Your task to perform on an android device: manage bookmarks in the chrome app Image 0: 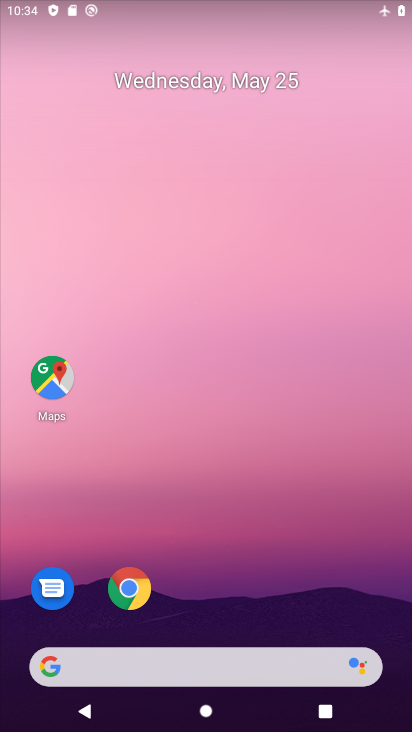
Step 0: drag from (246, 546) to (219, 155)
Your task to perform on an android device: manage bookmarks in the chrome app Image 1: 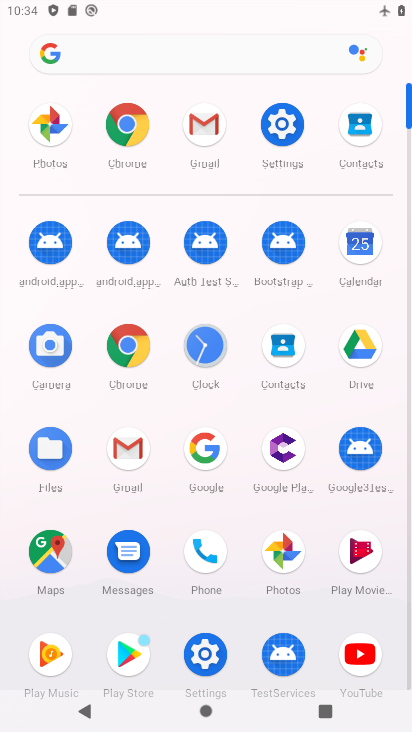
Step 1: click (121, 339)
Your task to perform on an android device: manage bookmarks in the chrome app Image 2: 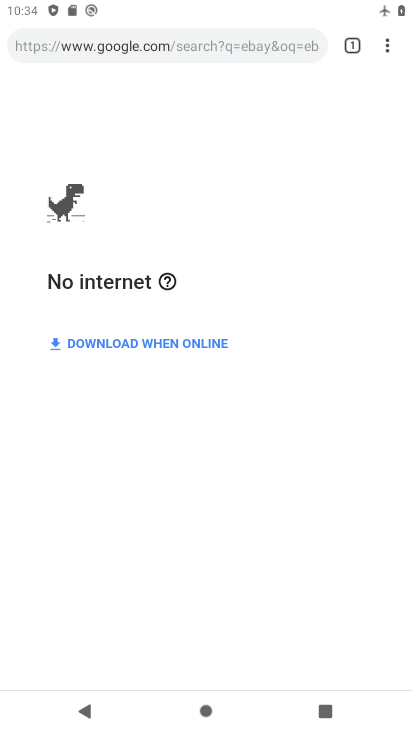
Step 2: task complete